Your task to perform on an android device: turn off data saver in the chrome app Image 0: 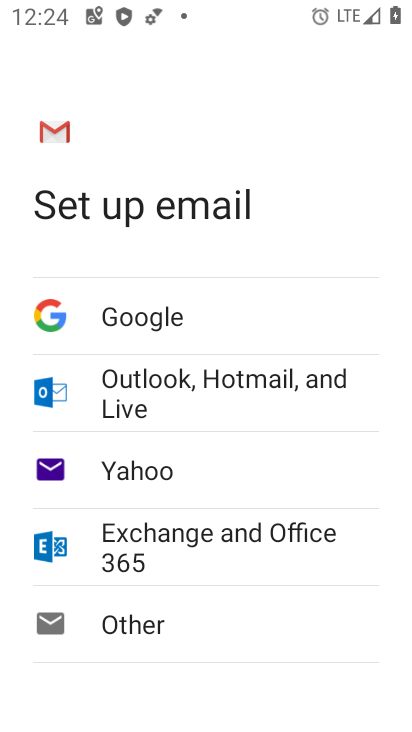
Step 0: press home button
Your task to perform on an android device: turn off data saver in the chrome app Image 1: 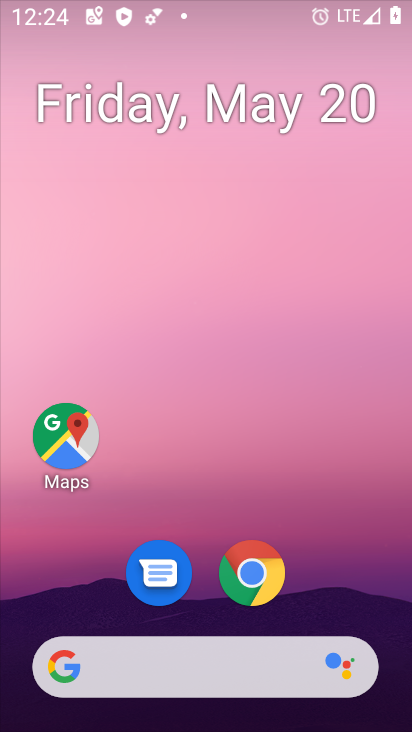
Step 1: click (257, 581)
Your task to perform on an android device: turn off data saver in the chrome app Image 2: 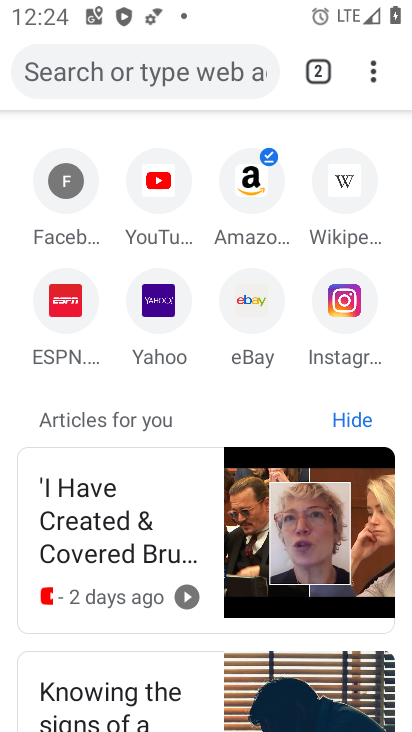
Step 2: click (369, 66)
Your task to perform on an android device: turn off data saver in the chrome app Image 3: 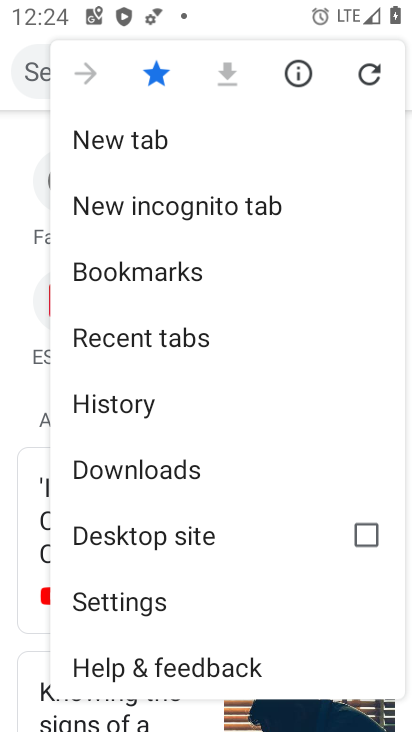
Step 3: click (145, 612)
Your task to perform on an android device: turn off data saver in the chrome app Image 4: 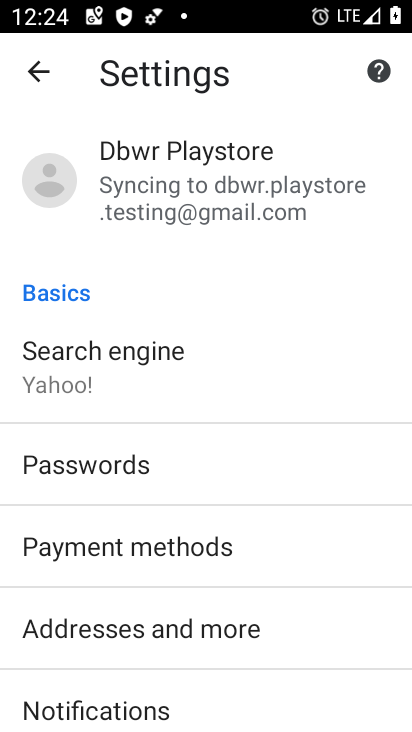
Step 4: drag from (194, 569) to (215, 150)
Your task to perform on an android device: turn off data saver in the chrome app Image 5: 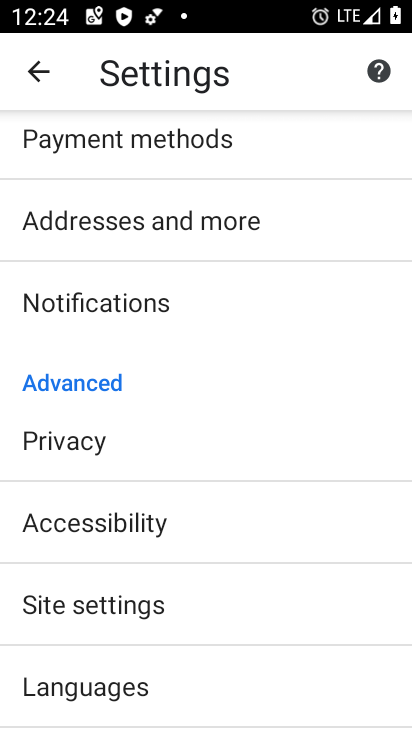
Step 5: drag from (146, 696) to (176, 404)
Your task to perform on an android device: turn off data saver in the chrome app Image 6: 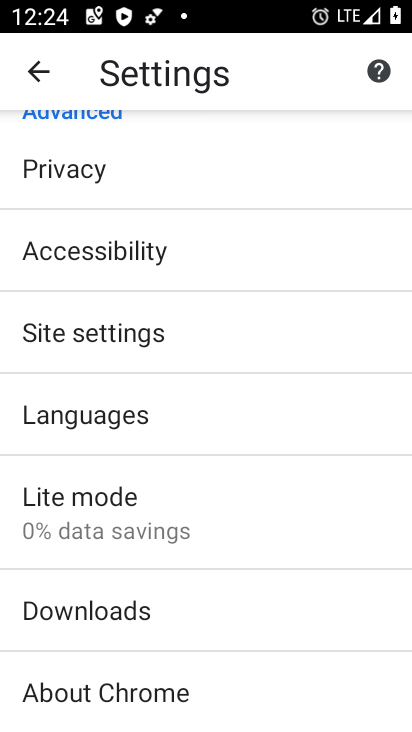
Step 6: click (145, 514)
Your task to perform on an android device: turn off data saver in the chrome app Image 7: 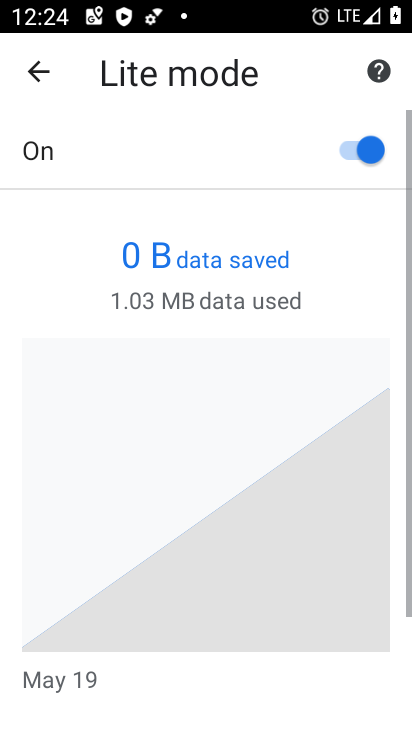
Step 7: click (366, 148)
Your task to perform on an android device: turn off data saver in the chrome app Image 8: 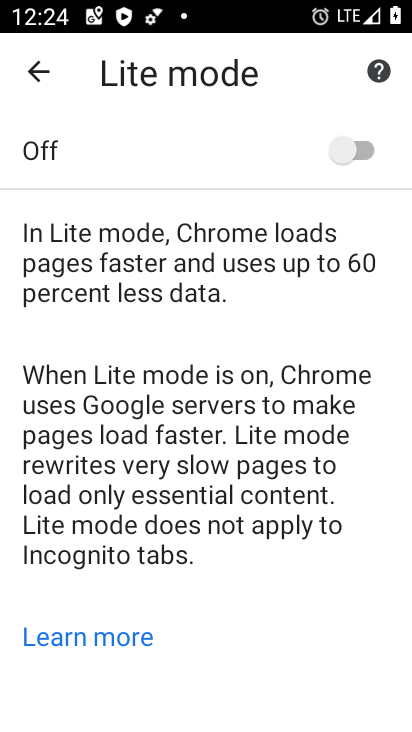
Step 8: task complete